Your task to perform on an android device: change timer sound Image 0: 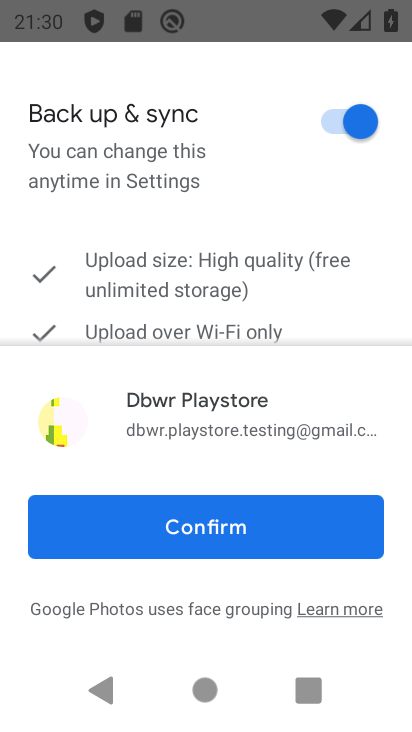
Step 0: press home button
Your task to perform on an android device: change timer sound Image 1: 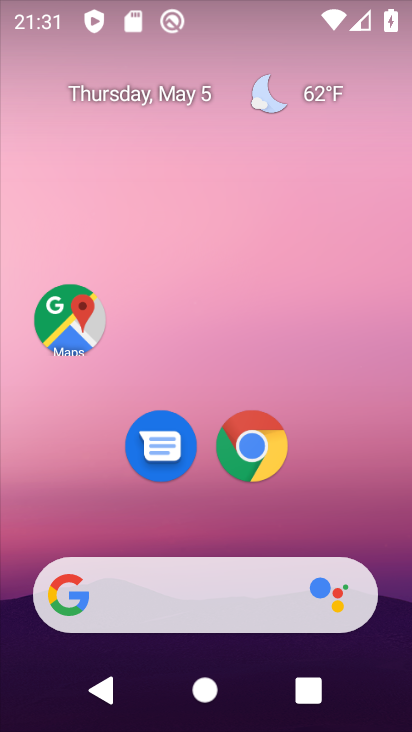
Step 1: drag from (257, 606) to (260, 232)
Your task to perform on an android device: change timer sound Image 2: 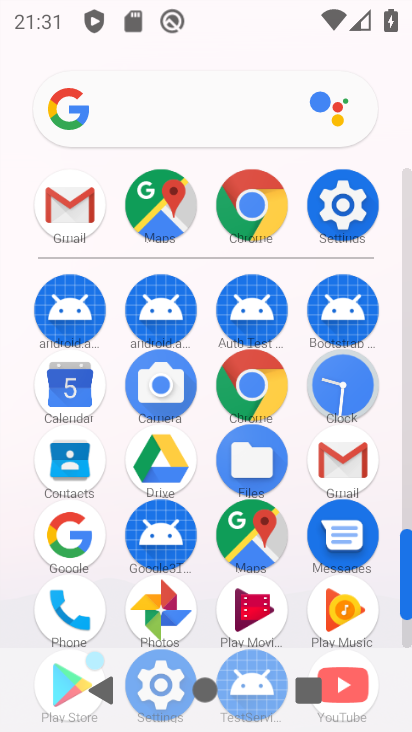
Step 2: click (348, 371)
Your task to perform on an android device: change timer sound Image 3: 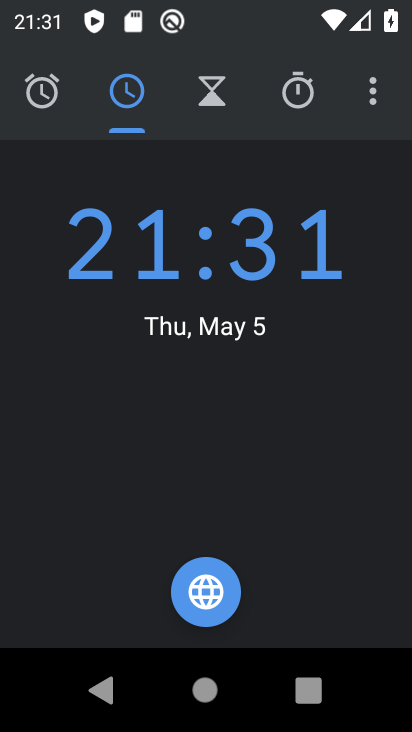
Step 3: click (358, 115)
Your task to perform on an android device: change timer sound Image 4: 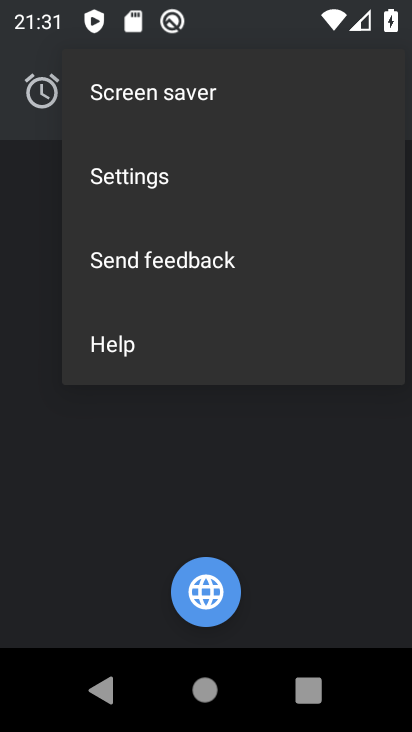
Step 4: click (208, 169)
Your task to perform on an android device: change timer sound Image 5: 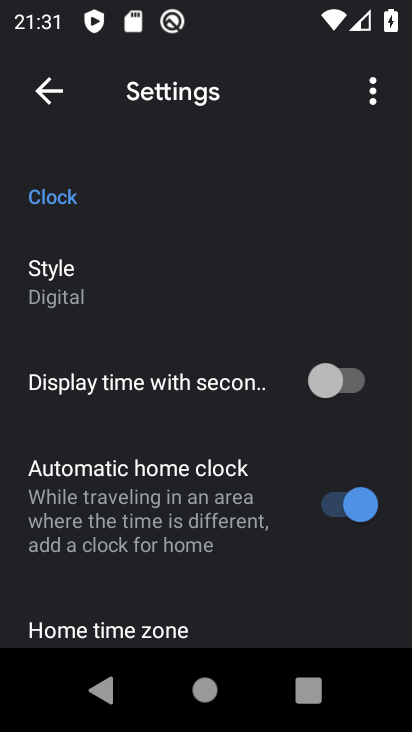
Step 5: click (133, 300)
Your task to perform on an android device: change timer sound Image 6: 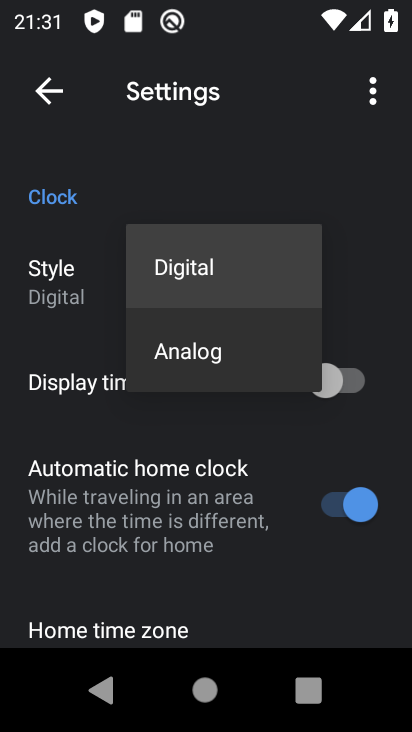
Step 6: drag from (102, 452) to (149, 193)
Your task to perform on an android device: change timer sound Image 7: 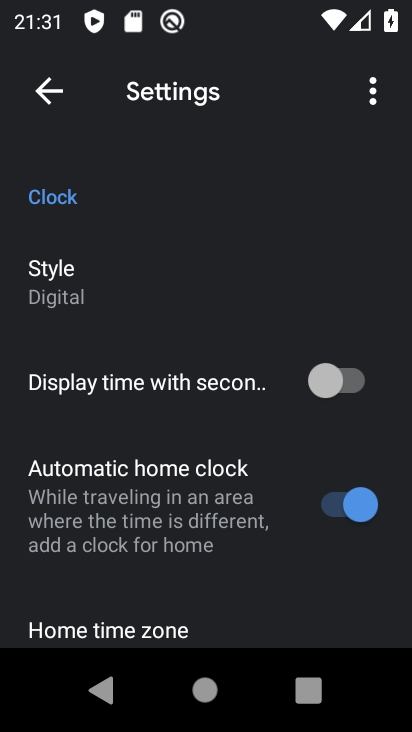
Step 7: drag from (217, 550) to (248, 248)
Your task to perform on an android device: change timer sound Image 8: 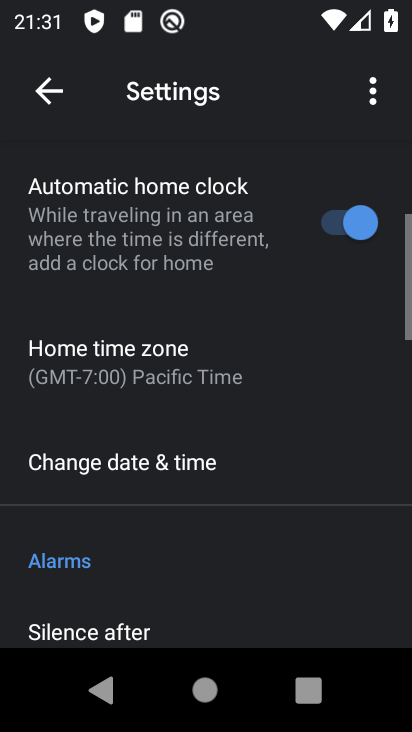
Step 8: drag from (248, 521) to (254, 139)
Your task to perform on an android device: change timer sound Image 9: 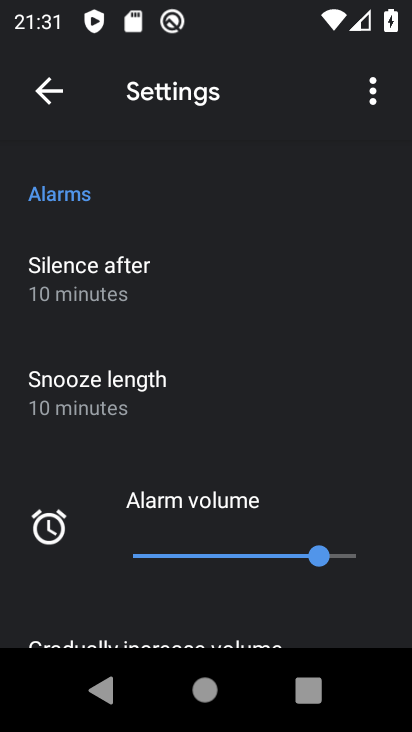
Step 9: drag from (239, 477) to (277, 178)
Your task to perform on an android device: change timer sound Image 10: 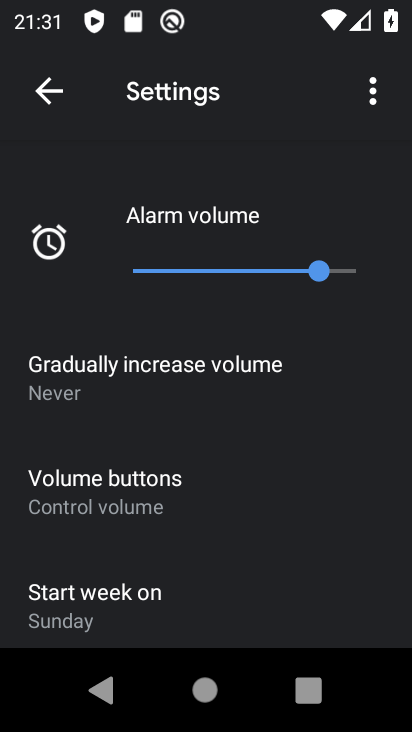
Step 10: drag from (228, 541) to (255, 260)
Your task to perform on an android device: change timer sound Image 11: 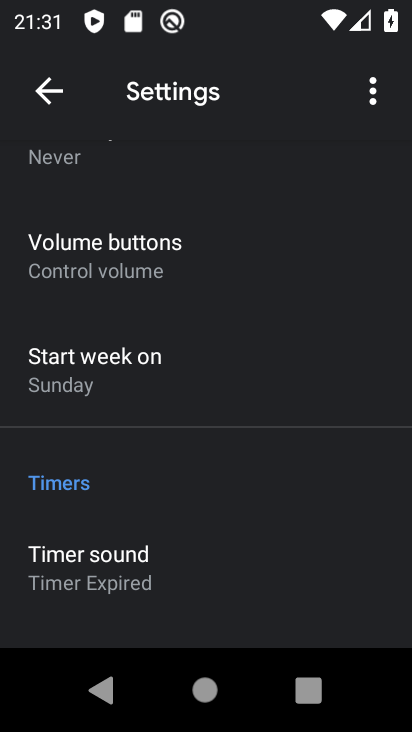
Step 11: click (179, 546)
Your task to perform on an android device: change timer sound Image 12: 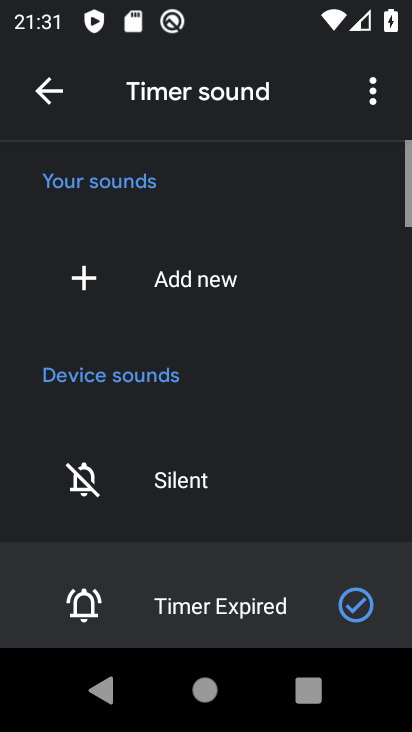
Step 12: drag from (221, 503) to (216, 345)
Your task to perform on an android device: change timer sound Image 13: 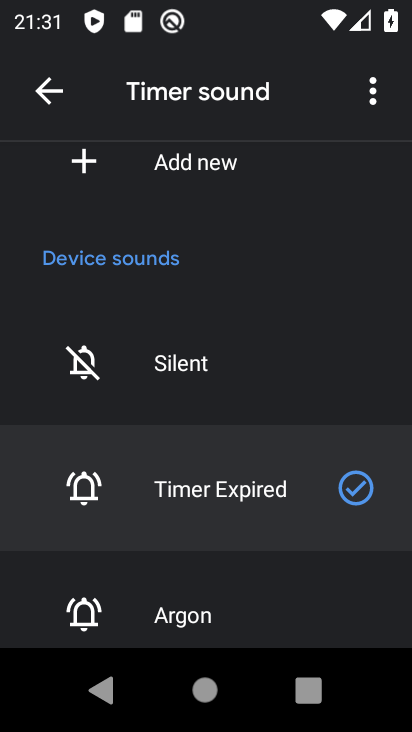
Step 13: click (129, 607)
Your task to perform on an android device: change timer sound Image 14: 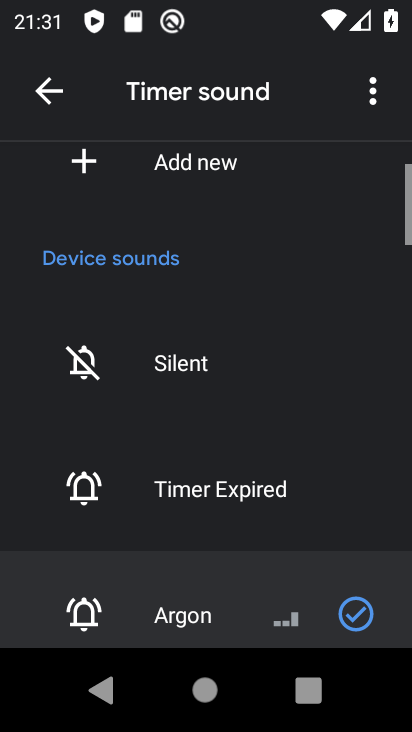
Step 14: task complete